Your task to perform on an android device: Search for pizza restaurants on Maps Image 0: 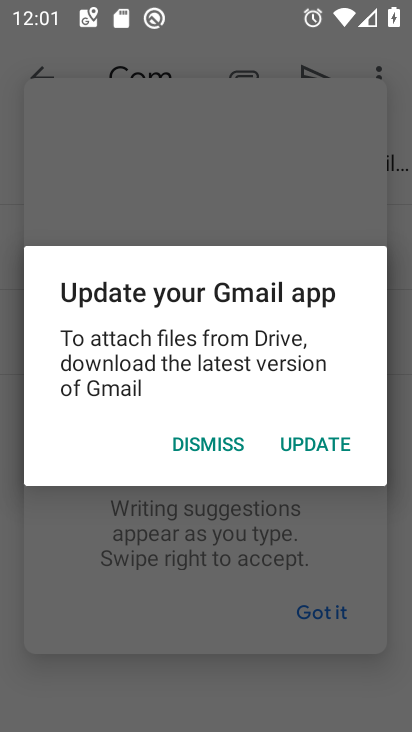
Step 0: press home button
Your task to perform on an android device: Search for pizza restaurants on Maps Image 1: 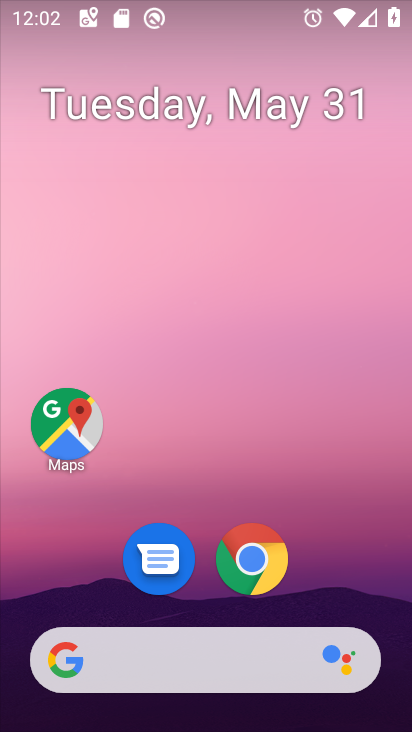
Step 1: click (61, 412)
Your task to perform on an android device: Search for pizza restaurants on Maps Image 2: 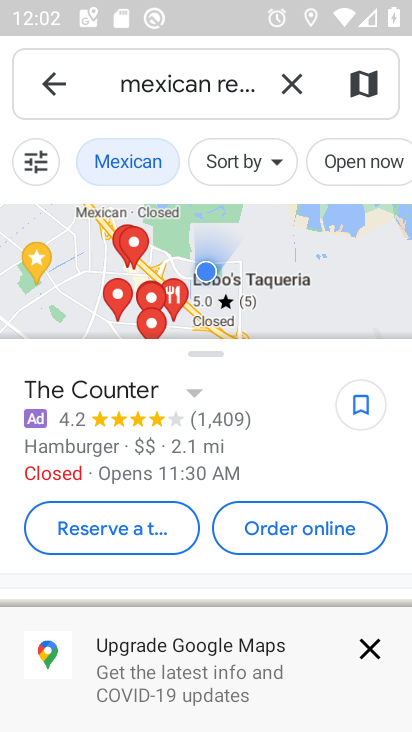
Step 2: click (293, 77)
Your task to perform on an android device: Search for pizza restaurants on Maps Image 3: 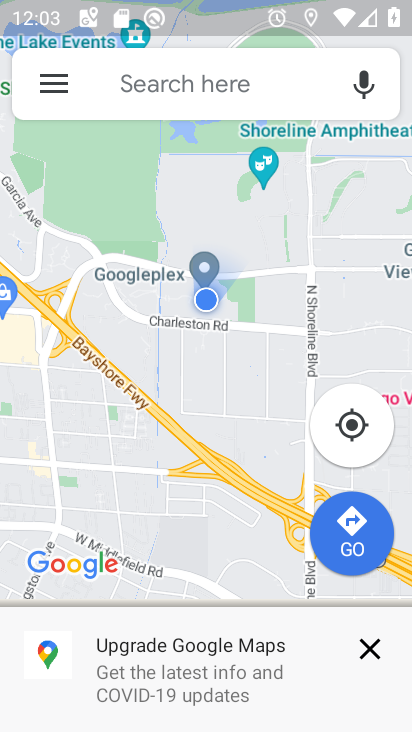
Step 3: click (204, 82)
Your task to perform on an android device: Search for pizza restaurants on Maps Image 4: 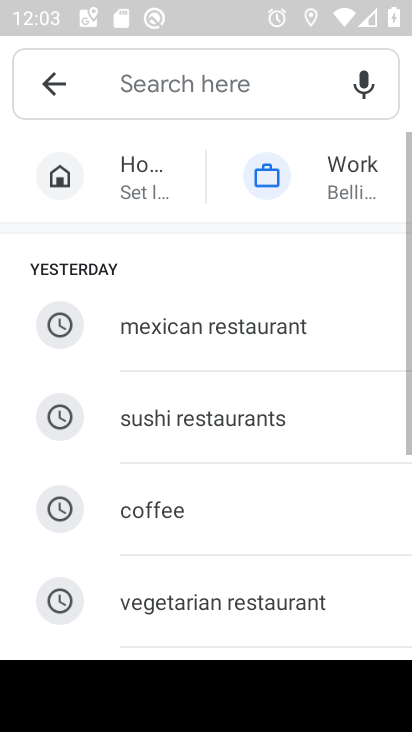
Step 4: drag from (294, 537) to (249, 294)
Your task to perform on an android device: Search for pizza restaurants on Maps Image 5: 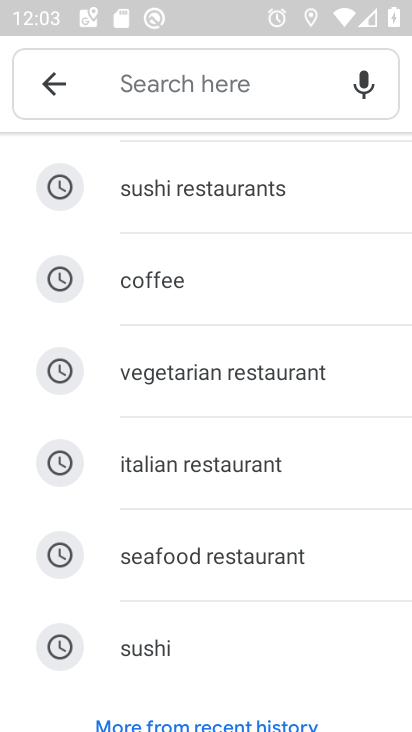
Step 5: drag from (245, 526) to (236, 303)
Your task to perform on an android device: Search for pizza restaurants on Maps Image 6: 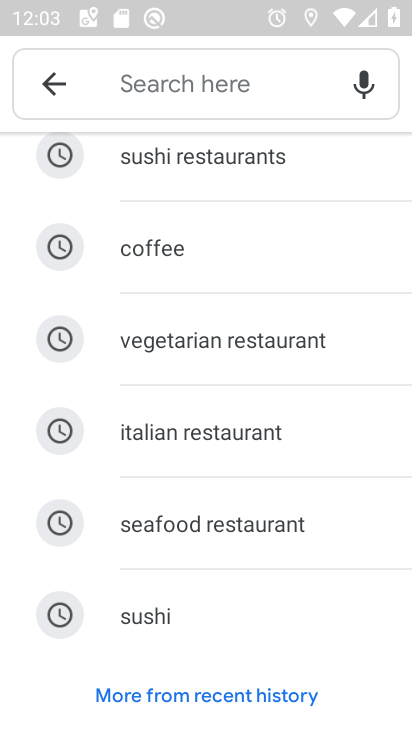
Step 6: click (222, 83)
Your task to perform on an android device: Search for pizza restaurants on Maps Image 7: 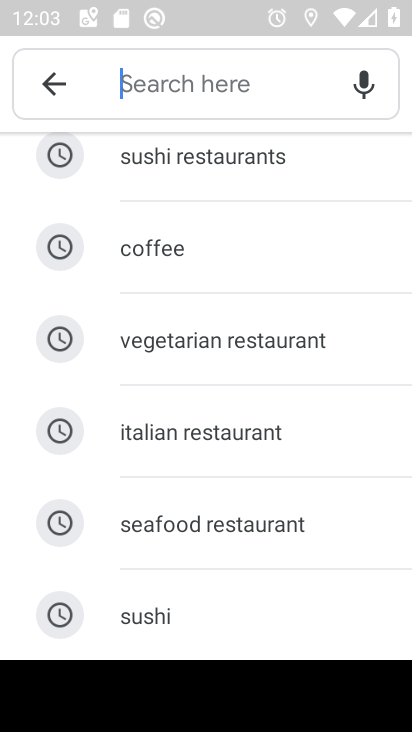
Step 7: type "pizza restaurants"
Your task to perform on an android device: Search for pizza restaurants on Maps Image 8: 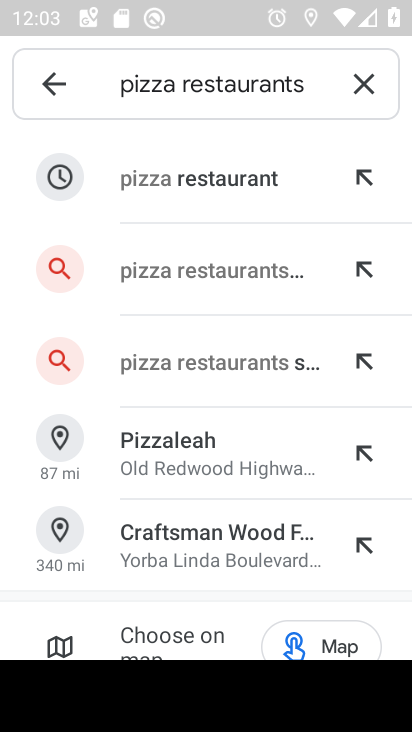
Step 8: click (275, 185)
Your task to perform on an android device: Search for pizza restaurants on Maps Image 9: 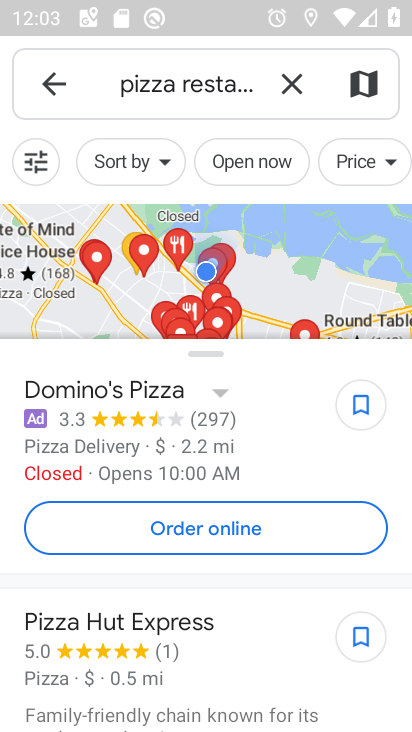
Step 9: task complete